Your task to perform on an android device: check data usage Image 0: 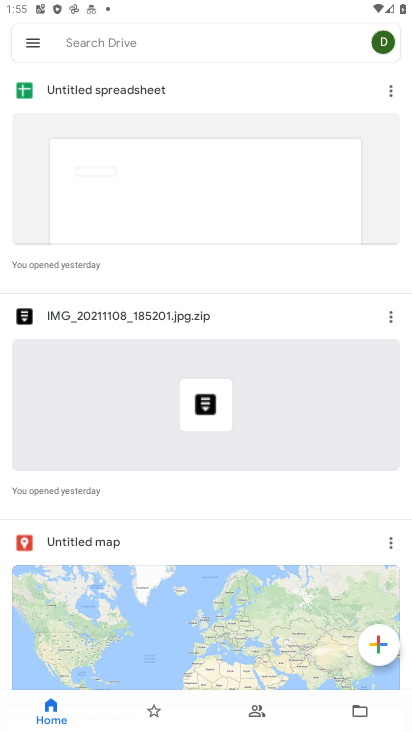
Step 0: press home button
Your task to perform on an android device: check data usage Image 1: 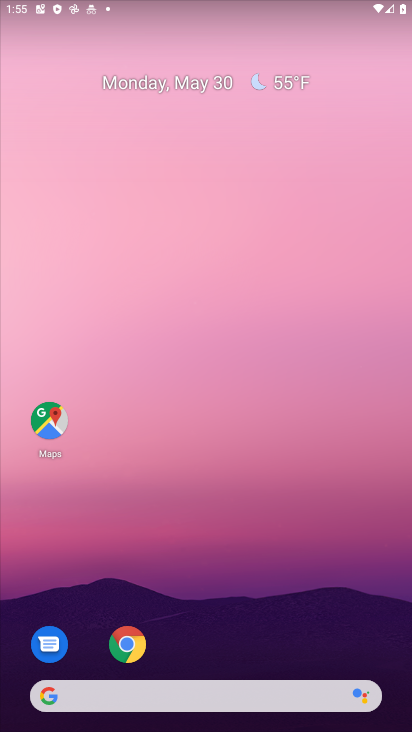
Step 1: drag from (298, 619) to (204, 138)
Your task to perform on an android device: check data usage Image 2: 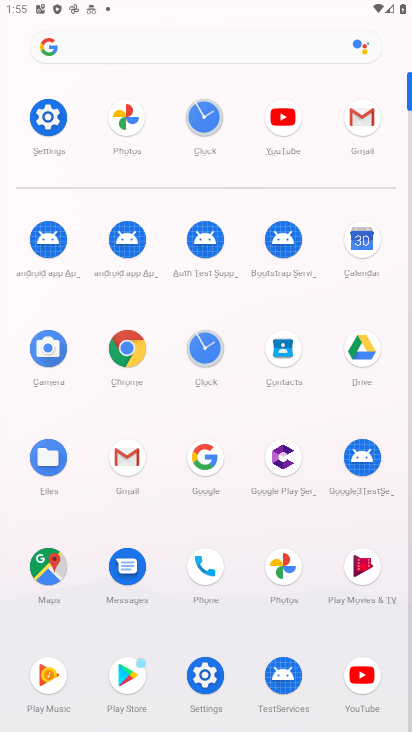
Step 2: click (69, 124)
Your task to perform on an android device: check data usage Image 3: 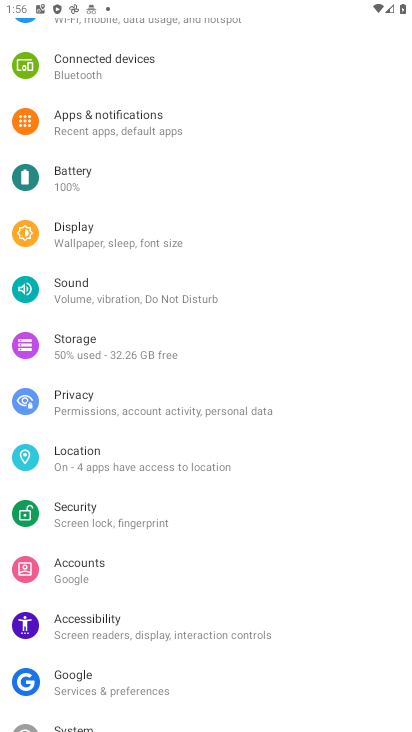
Step 3: drag from (112, 200) to (171, 388)
Your task to perform on an android device: check data usage Image 4: 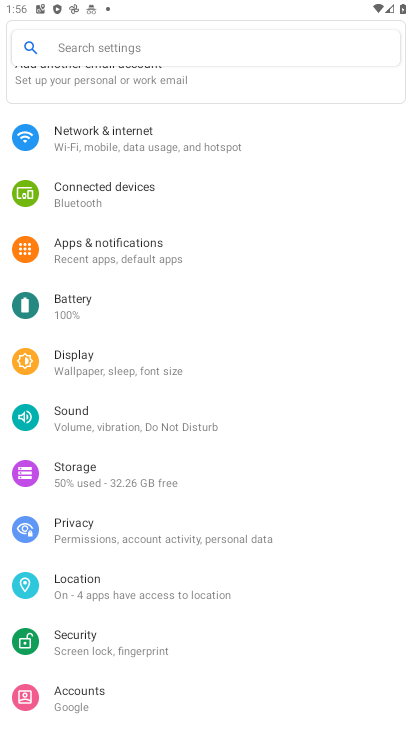
Step 4: click (88, 121)
Your task to perform on an android device: check data usage Image 5: 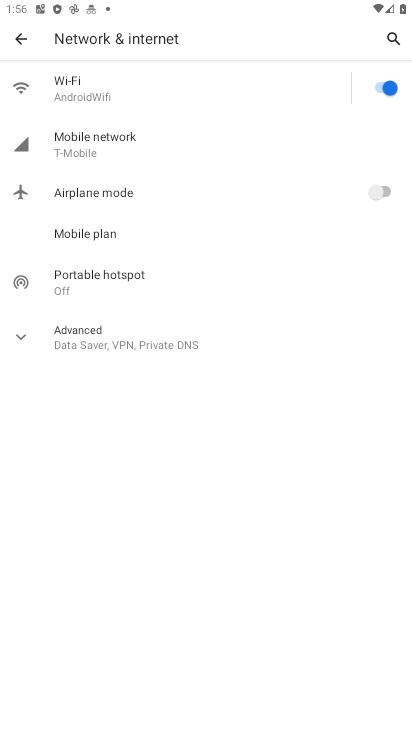
Step 5: task complete